Your task to perform on an android device: Go to Yahoo.com Image 0: 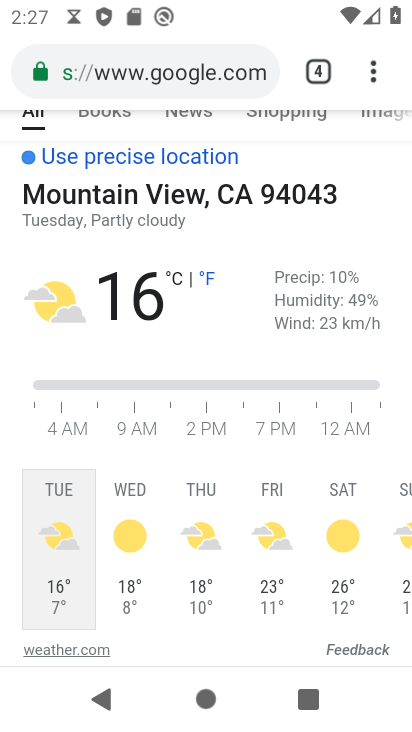
Step 0: press home button
Your task to perform on an android device: Go to Yahoo.com Image 1: 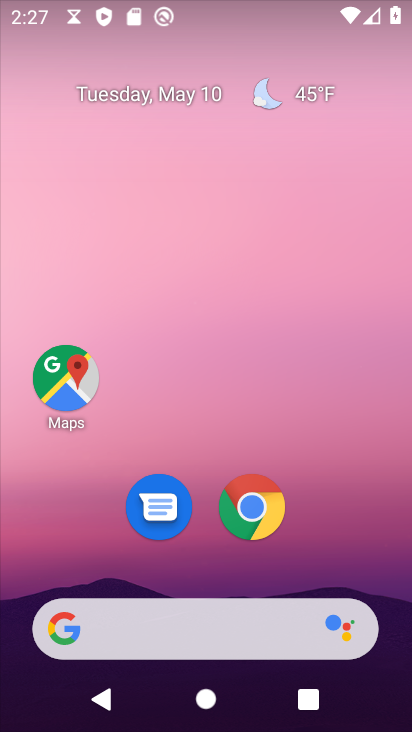
Step 1: click (259, 505)
Your task to perform on an android device: Go to Yahoo.com Image 2: 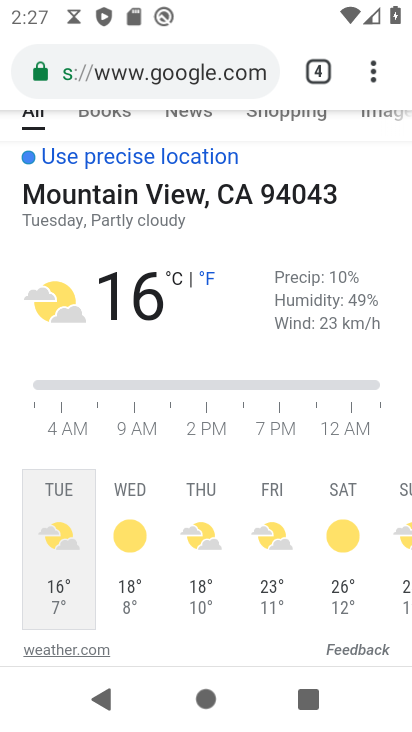
Step 2: click (316, 70)
Your task to perform on an android device: Go to Yahoo.com Image 3: 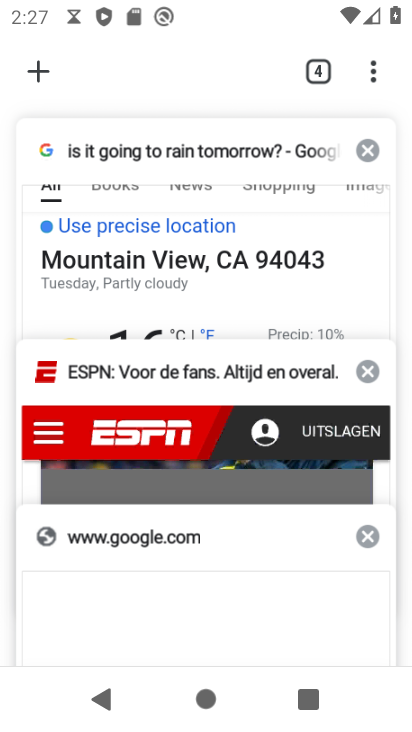
Step 3: drag from (156, 594) to (180, 210)
Your task to perform on an android device: Go to Yahoo.com Image 4: 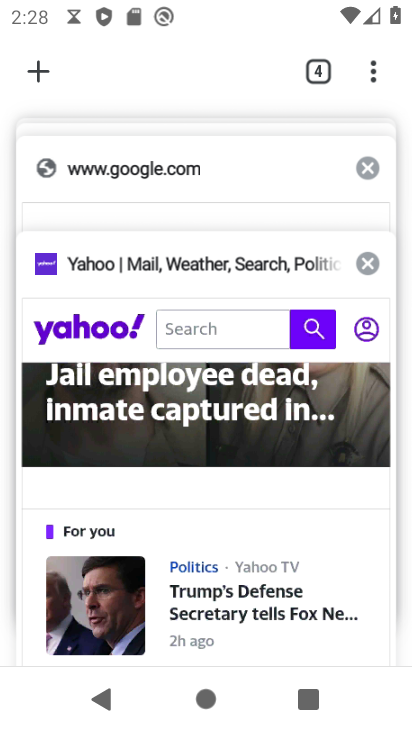
Step 4: click (187, 512)
Your task to perform on an android device: Go to Yahoo.com Image 5: 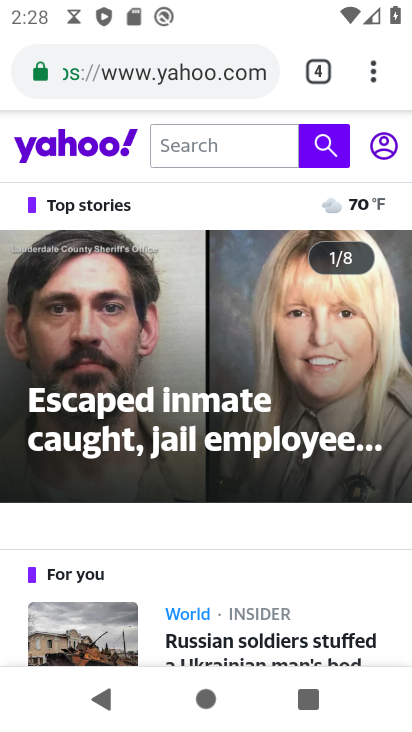
Step 5: task complete